Your task to perform on an android device: turn on priority inbox in the gmail app Image 0: 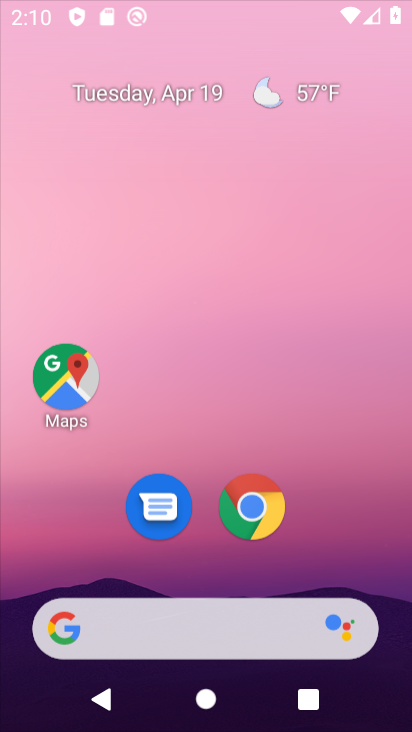
Step 0: drag from (276, 333) to (221, 486)
Your task to perform on an android device: turn on priority inbox in the gmail app Image 1: 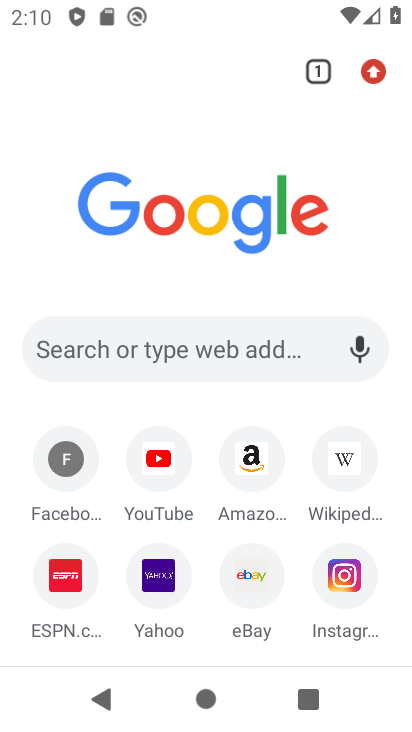
Step 1: task complete